Your task to perform on an android device: turn off location history Image 0: 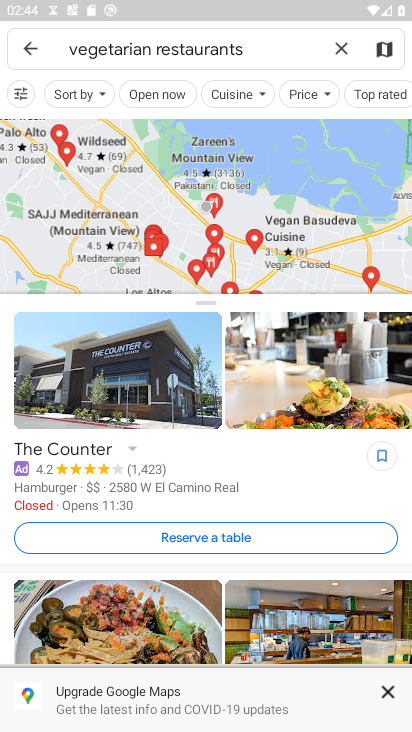
Step 0: press home button
Your task to perform on an android device: turn off location history Image 1: 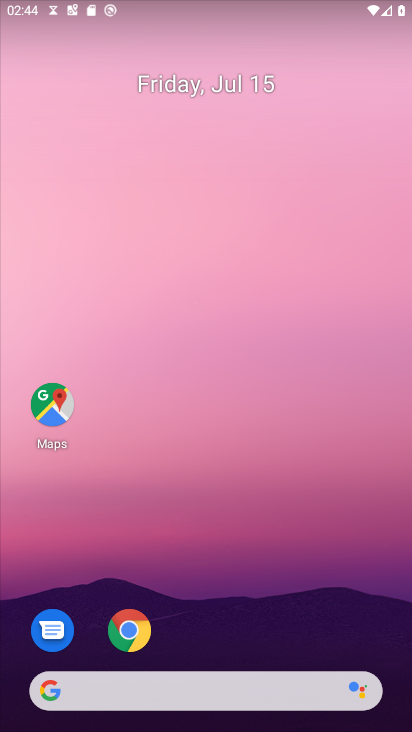
Step 1: drag from (298, 571) to (290, 7)
Your task to perform on an android device: turn off location history Image 2: 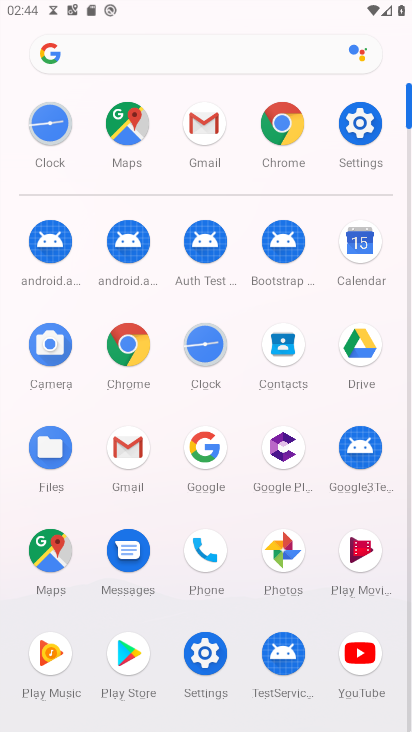
Step 2: click (364, 121)
Your task to perform on an android device: turn off location history Image 3: 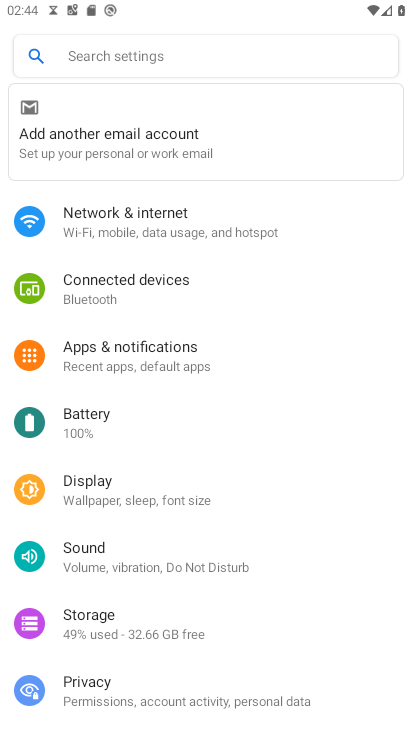
Step 3: drag from (178, 588) to (182, 330)
Your task to perform on an android device: turn off location history Image 4: 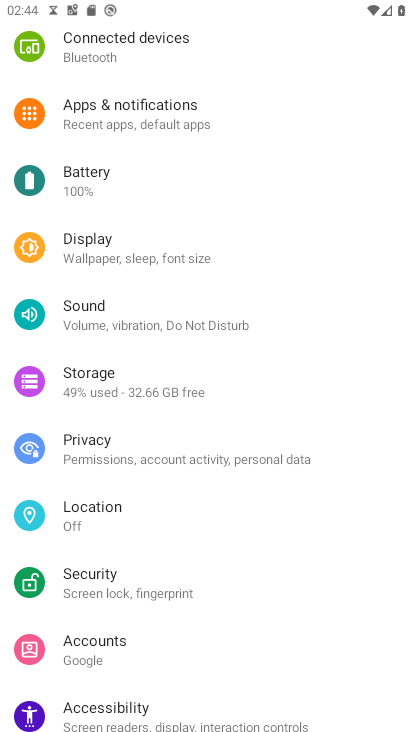
Step 4: click (69, 513)
Your task to perform on an android device: turn off location history Image 5: 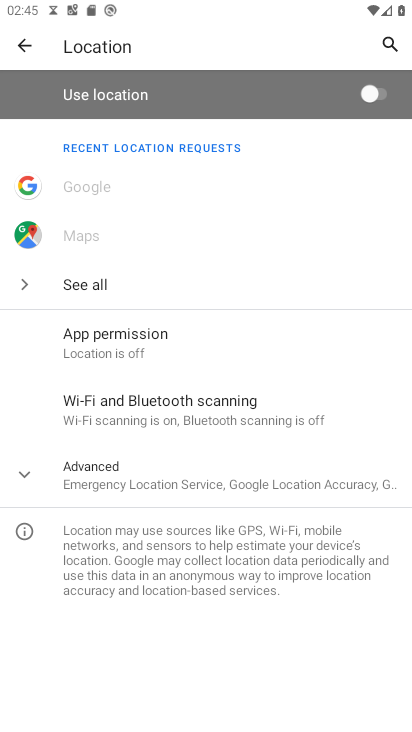
Step 5: task complete